Your task to perform on an android device: open app "LiveIn - Share Your Moment" (install if not already installed) Image 0: 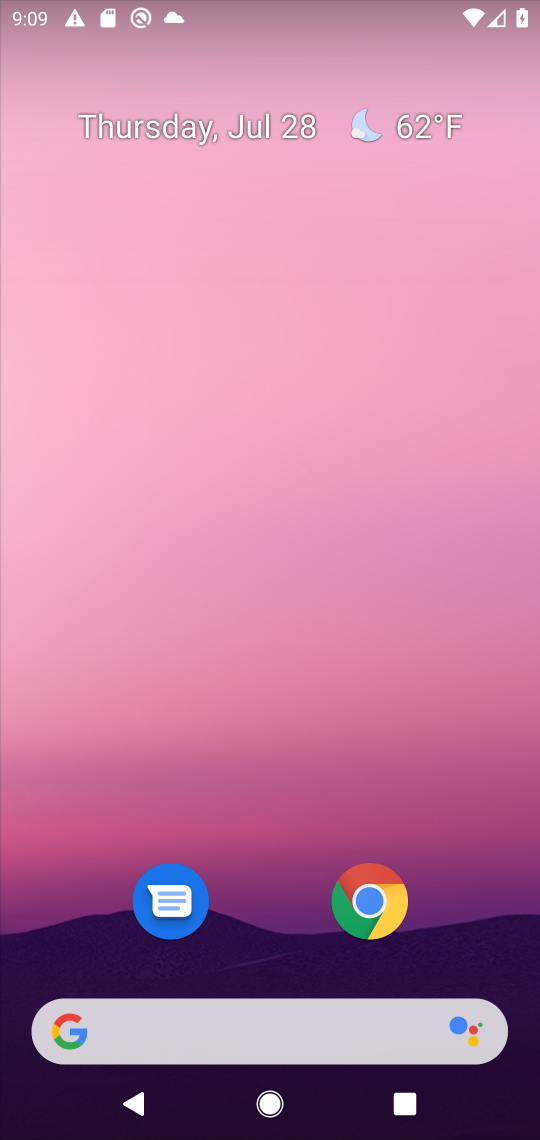
Step 0: drag from (508, 1016) to (479, 121)
Your task to perform on an android device: open app "LiveIn - Share Your Moment" (install if not already installed) Image 1: 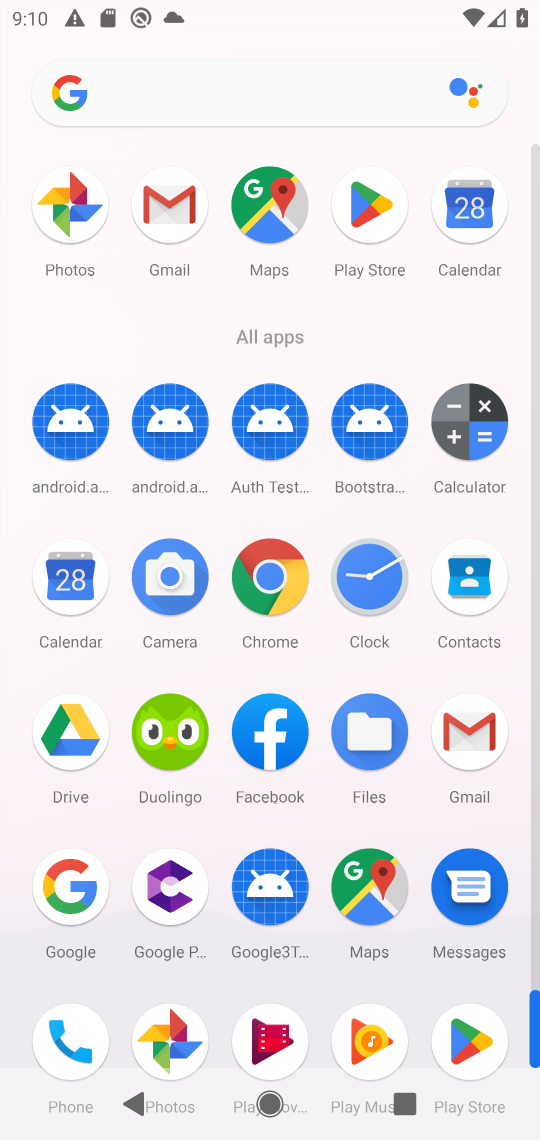
Step 1: click (382, 220)
Your task to perform on an android device: open app "LiveIn - Share Your Moment" (install if not already installed) Image 2: 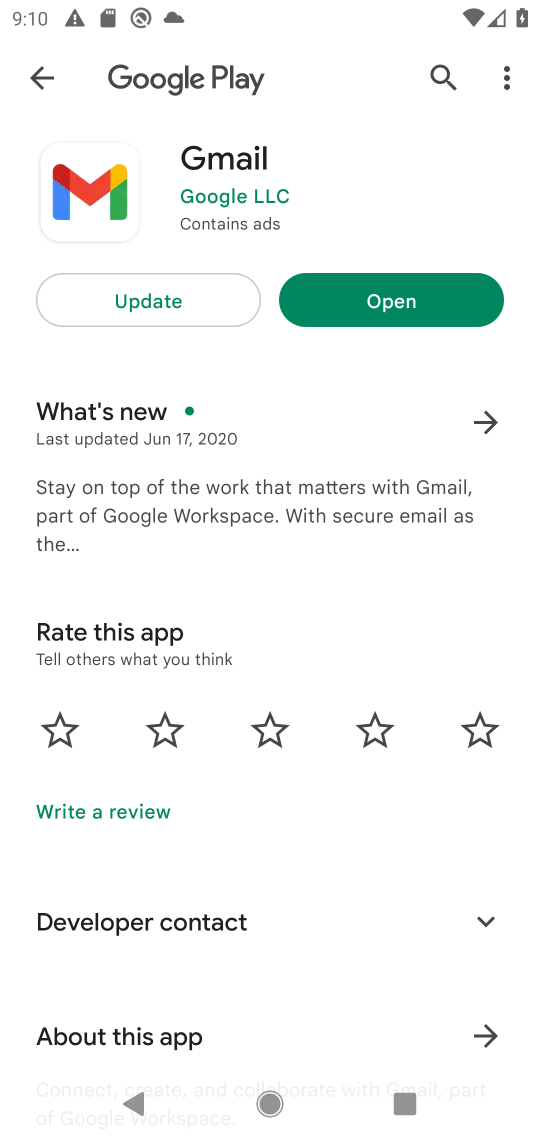
Step 2: press home button
Your task to perform on an android device: open app "LiveIn - Share Your Moment" (install if not already installed) Image 3: 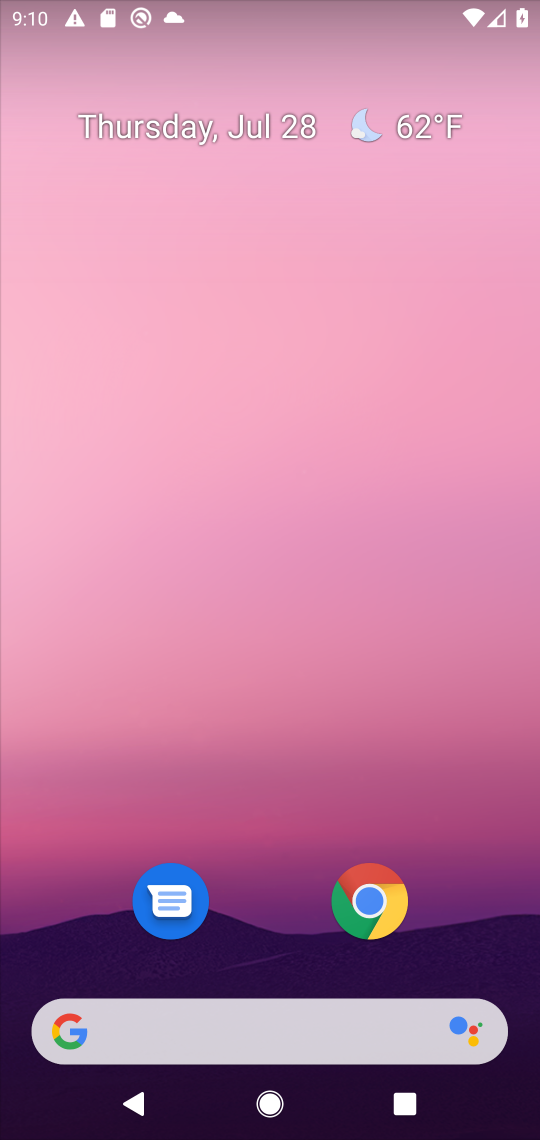
Step 3: drag from (522, 1040) to (427, 199)
Your task to perform on an android device: open app "LiveIn - Share Your Moment" (install if not already installed) Image 4: 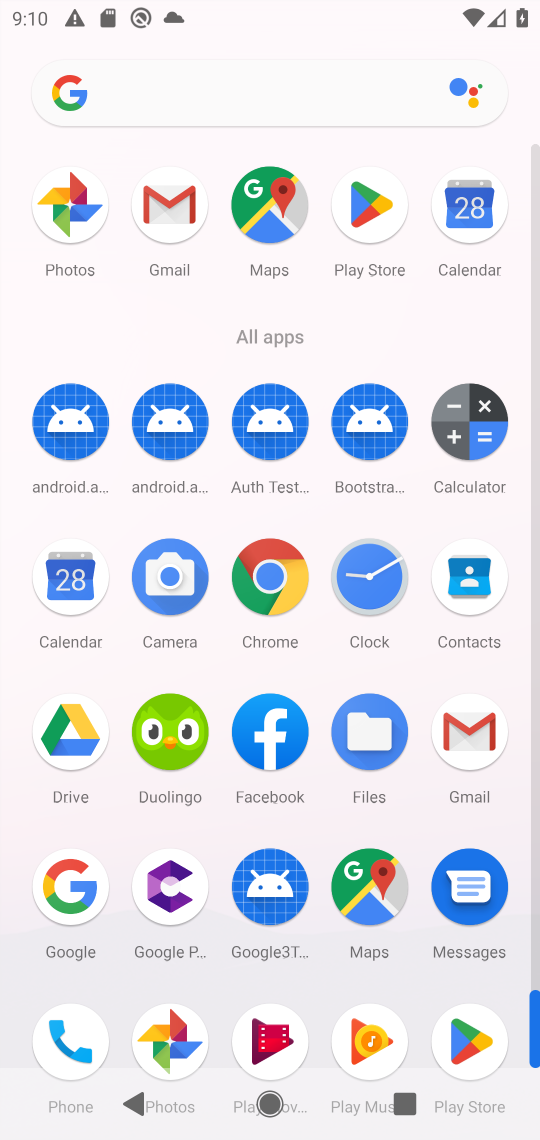
Step 4: click (361, 209)
Your task to perform on an android device: open app "LiveIn - Share Your Moment" (install if not already installed) Image 5: 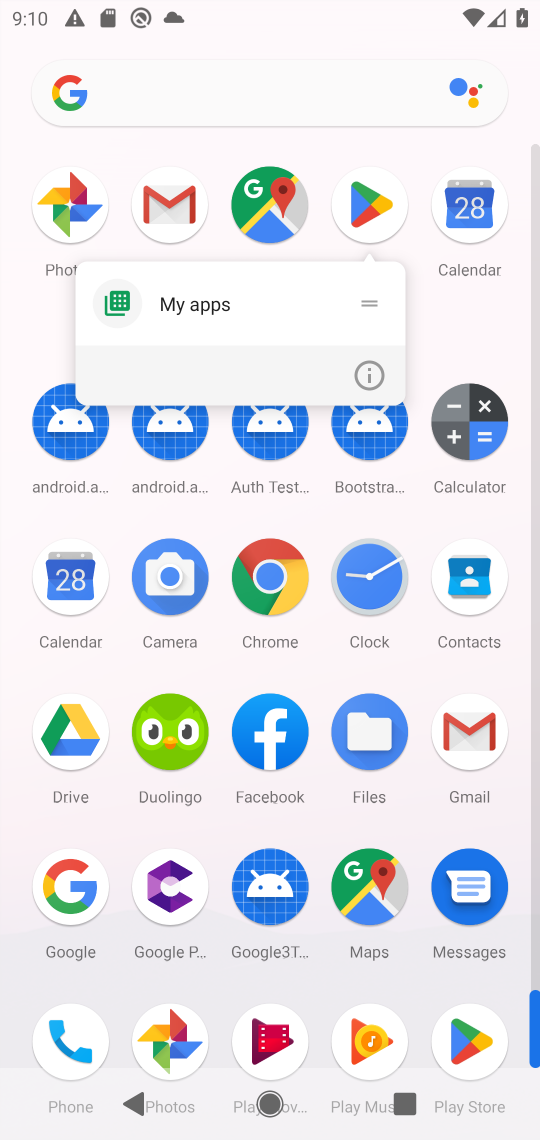
Step 5: click (361, 209)
Your task to perform on an android device: open app "LiveIn - Share Your Moment" (install if not already installed) Image 6: 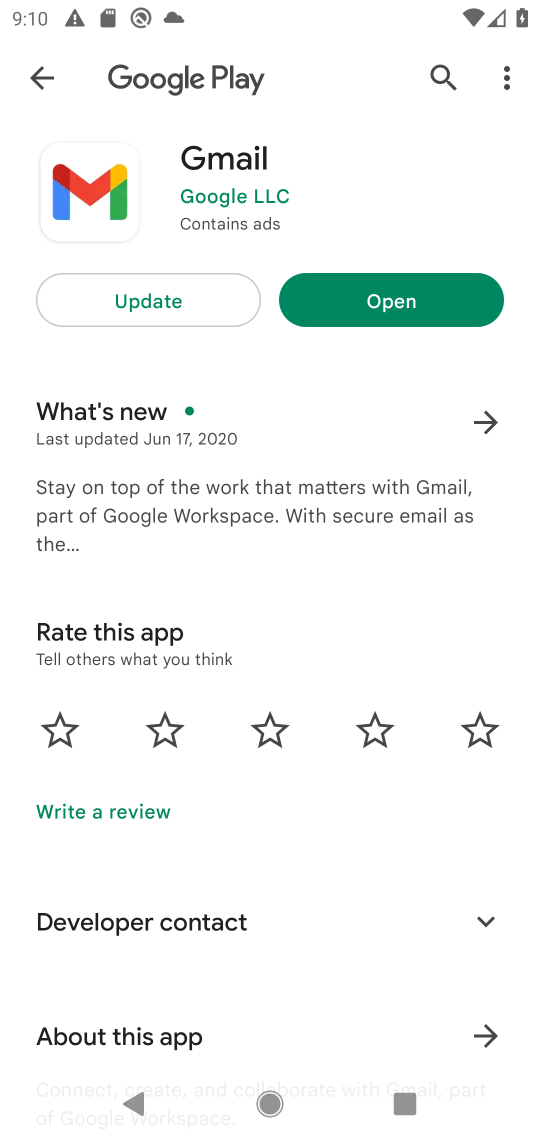
Step 6: click (443, 69)
Your task to perform on an android device: open app "LiveIn - Share Your Moment" (install if not already installed) Image 7: 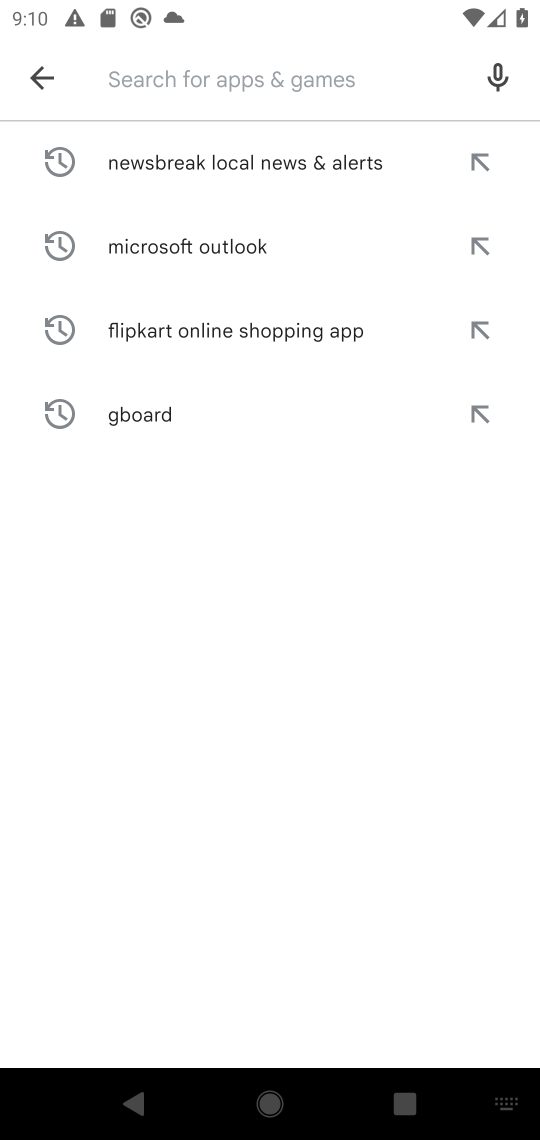
Step 7: type "LiveIn - Share Your Moment"
Your task to perform on an android device: open app "LiveIn - Share Your Moment" (install if not already installed) Image 8: 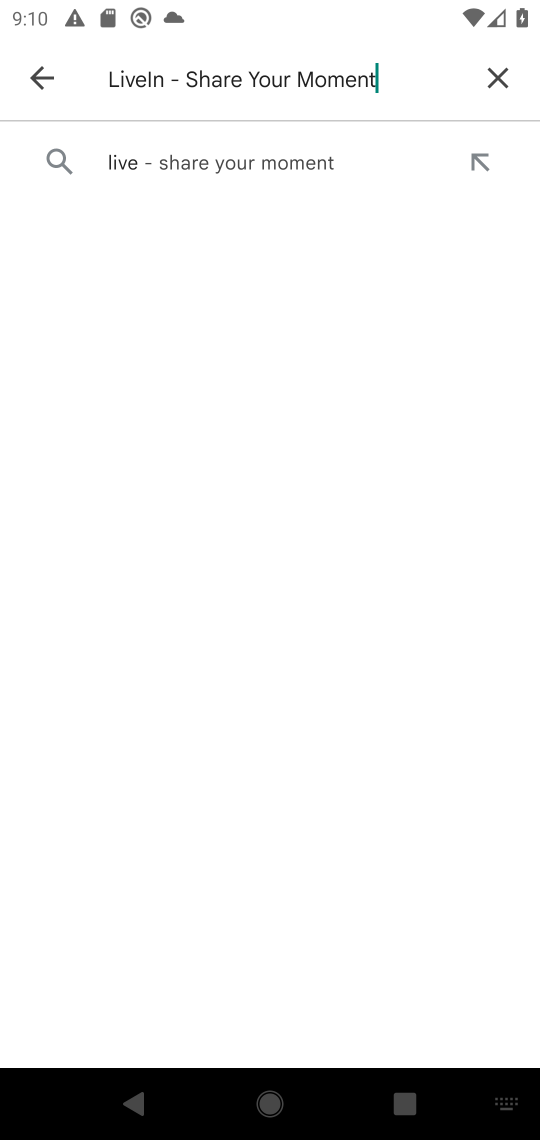
Step 8: click (267, 165)
Your task to perform on an android device: open app "LiveIn - Share Your Moment" (install if not already installed) Image 9: 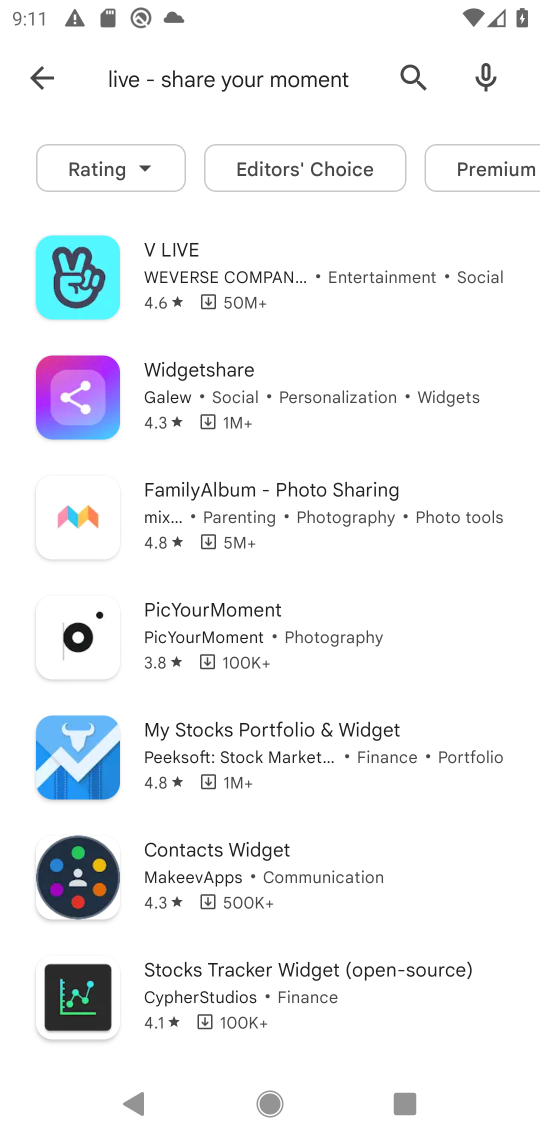
Step 9: task complete